Your task to perform on an android device: When is my next meeting? Image 0: 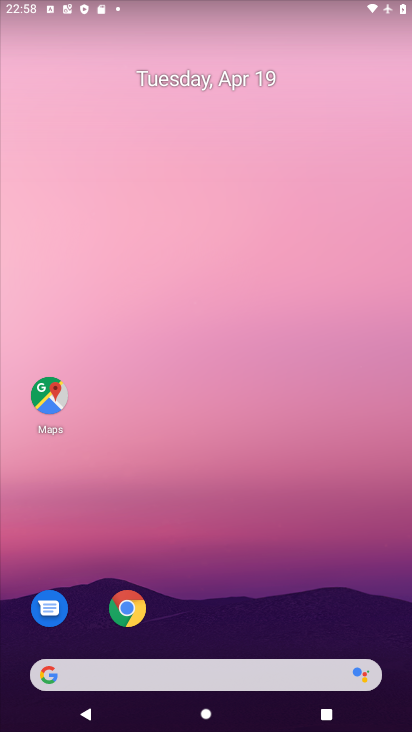
Step 0: drag from (367, 625) to (294, 210)
Your task to perform on an android device: When is my next meeting? Image 1: 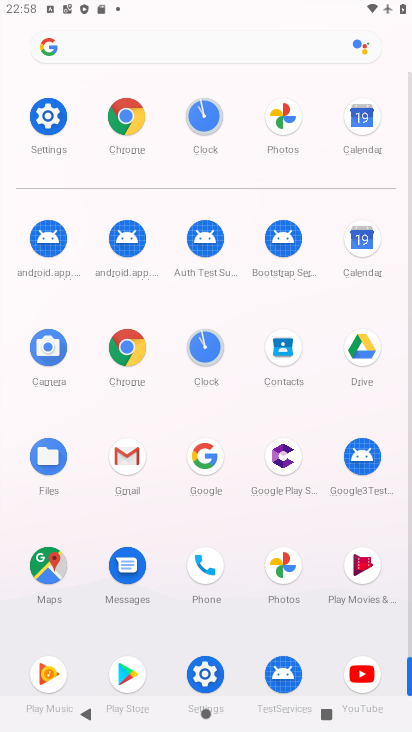
Step 1: click (359, 238)
Your task to perform on an android device: When is my next meeting? Image 2: 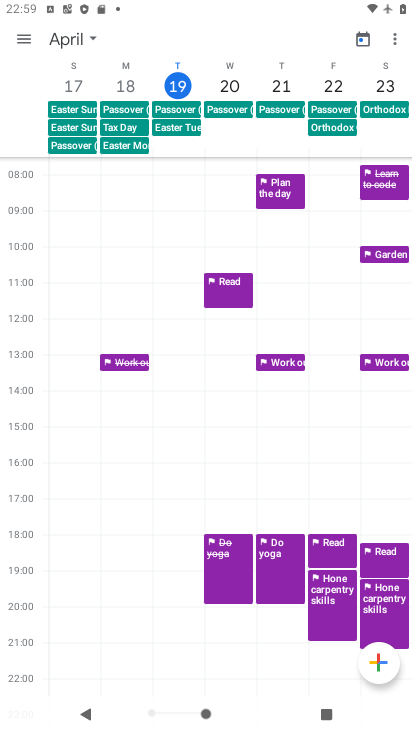
Step 2: task complete